Your task to perform on an android device: set default search engine in the chrome app Image 0: 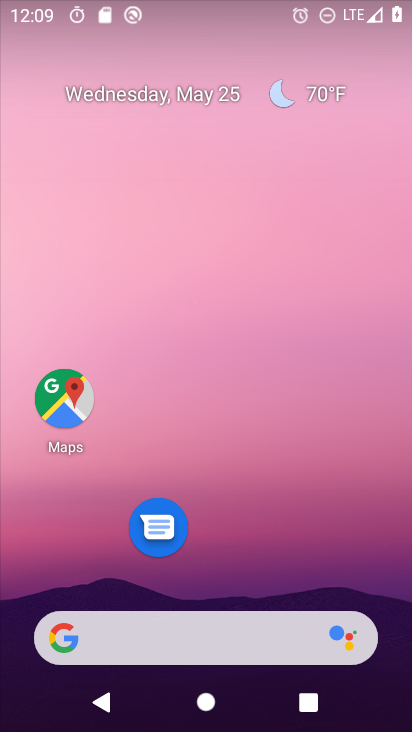
Step 0: drag from (277, 540) to (257, 51)
Your task to perform on an android device: set default search engine in the chrome app Image 1: 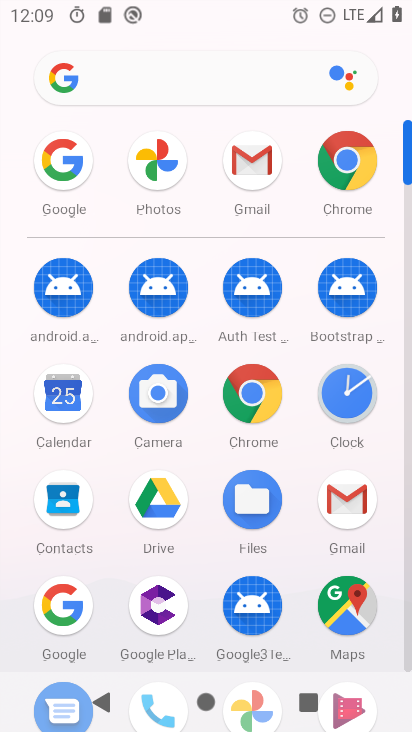
Step 1: click (342, 167)
Your task to perform on an android device: set default search engine in the chrome app Image 2: 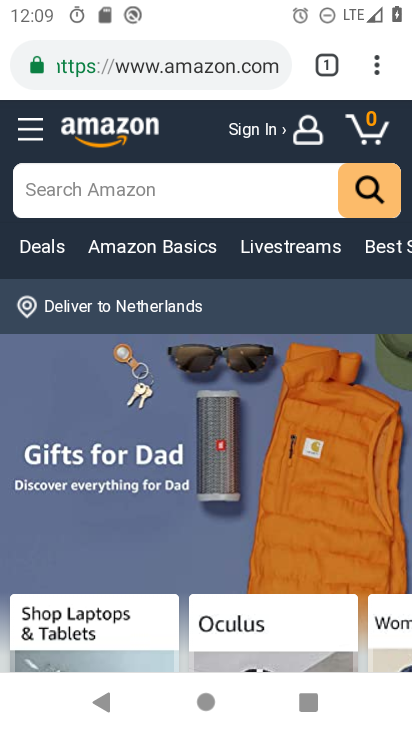
Step 2: click (373, 63)
Your task to perform on an android device: set default search engine in the chrome app Image 3: 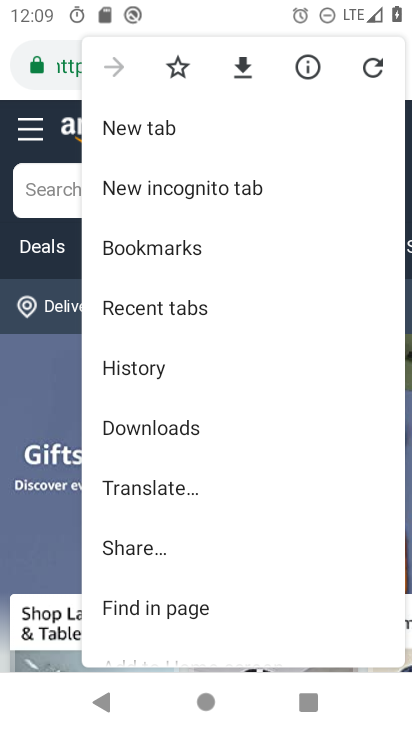
Step 3: drag from (267, 563) to (230, 228)
Your task to perform on an android device: set default search engine in the chrome app Image 4: 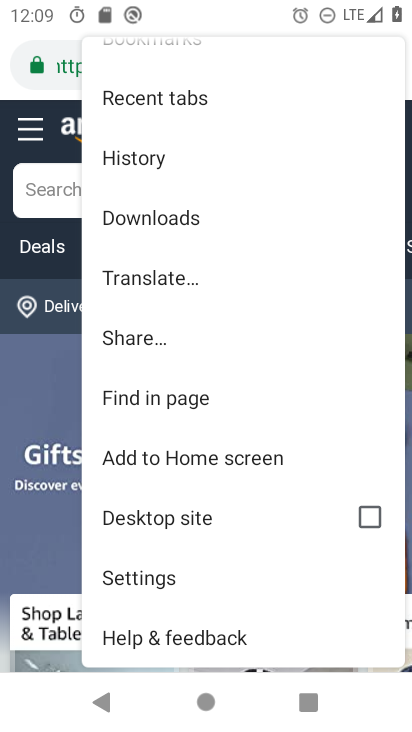
Step 4: click (168, 577)
Your task to perform on an android device: set default search engine in the chrome app Image 5: 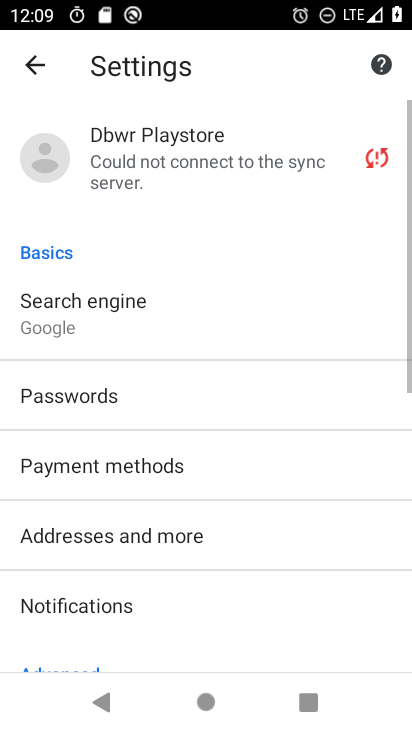
Step 5: click (107, 322)
Your task to perform on an android device: set default search engine in the chrome app Image 6: 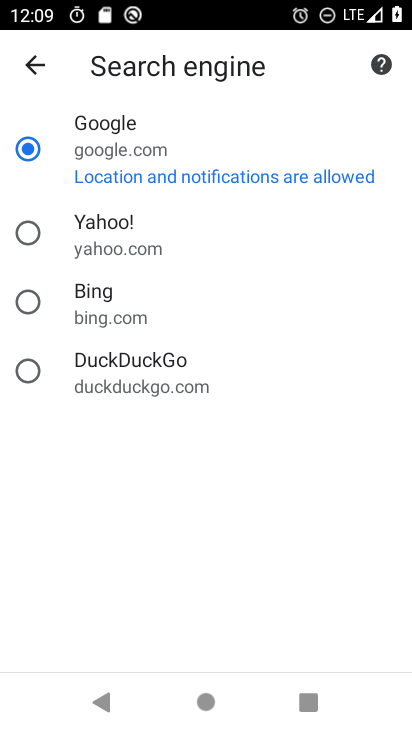
Step 6: click (23, 230)
Your task to perform on an android device: set default search engine in the chrome app Image 7: 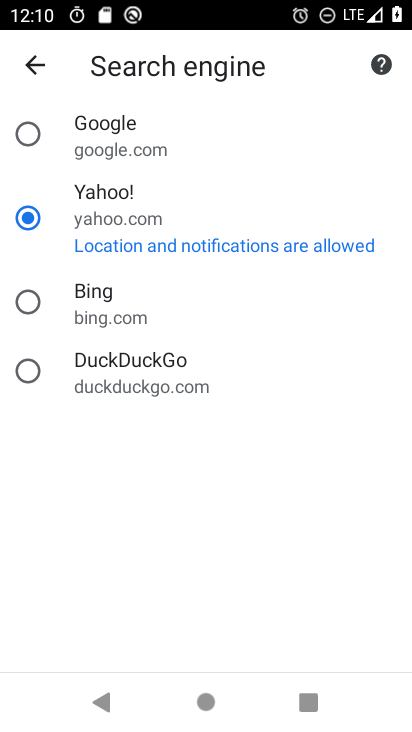
Step 7: task complete